Your task to perform on an android device: toggle improve location accuracy Image 0: 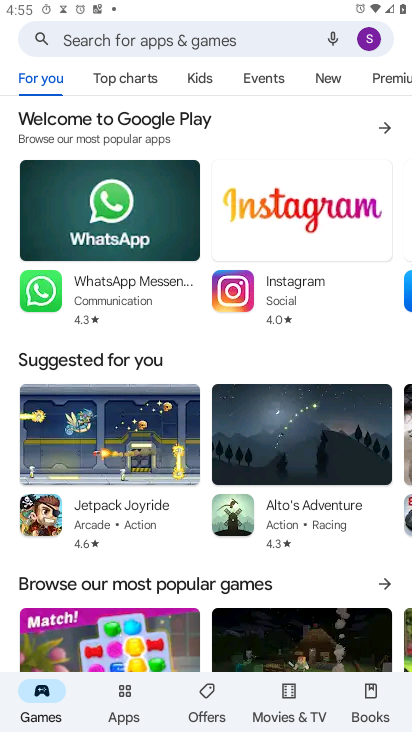
Step 0: press home button
Your task to perform on an android device: toggle improve location accuracy Image 1: 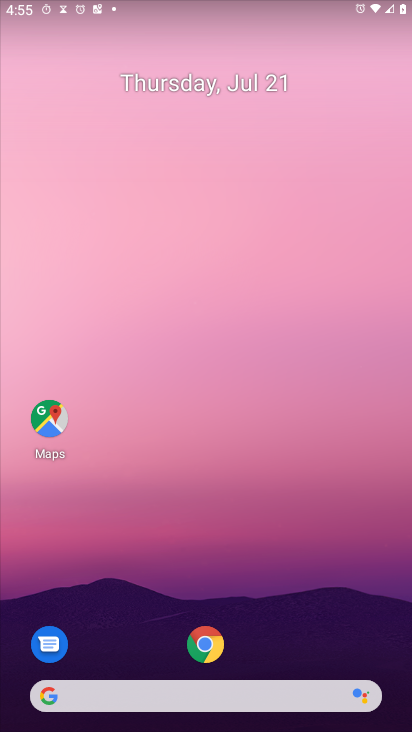
Step 1: drag from (311, 574) to (402, 74)
Your task to perform on an android device: toggle improve location accuracy Image 2: 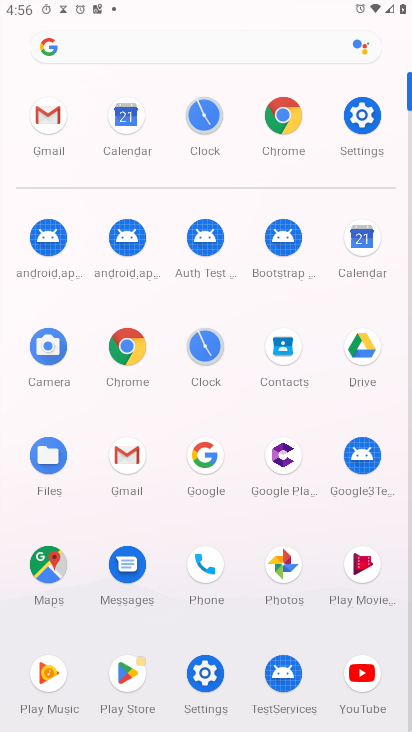
Step 2: click (370, 116)
Your task to perform on an android device: toggle improve location accuracy Image 3: 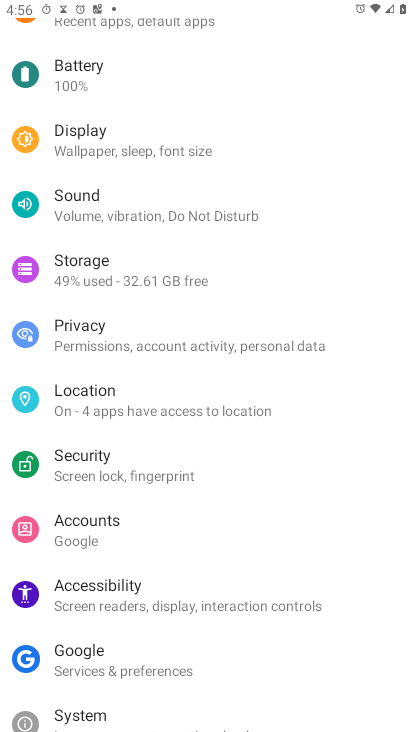
Step 3: click (82, 397)
Your task to perform on an android device: toggle improve location accuracy Image 4: 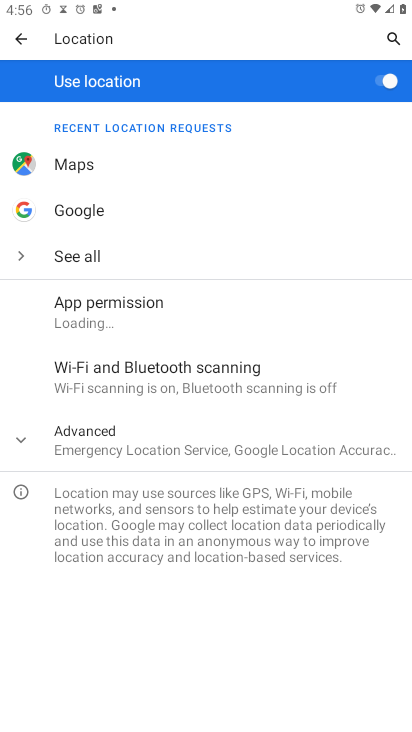
Step 4: click (14, 442)
Your task to perform on an android device: toggle improve location accuracy Image 5: 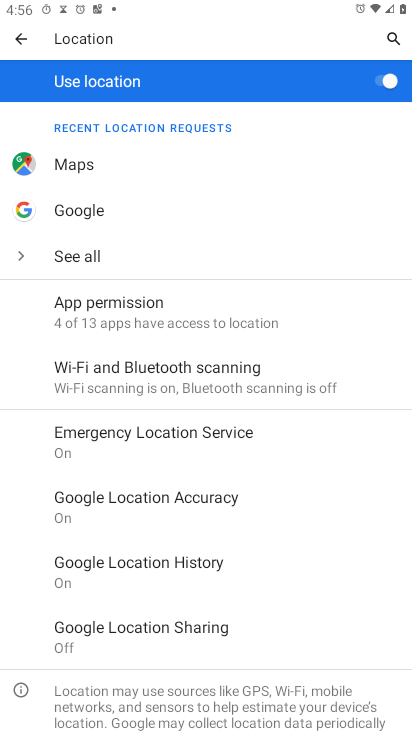
Step 5: click (166, 506)
Your task to perform on an android device: toggle improve location accuracy Image 6: 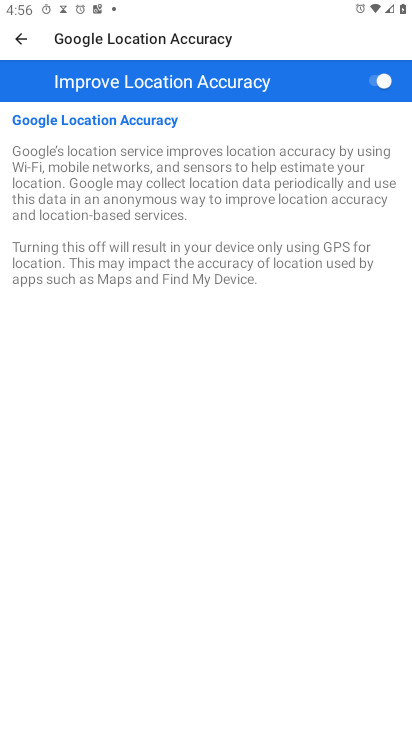
Step 6: click (378, 74)
Your task to perform on an android device: toggle improve location accuracy Image 7: 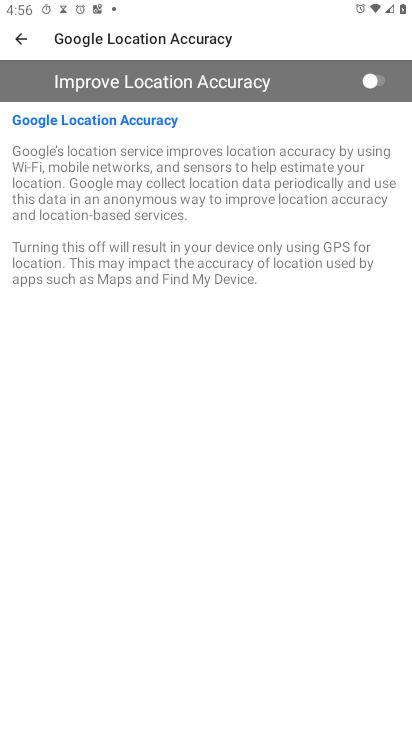
Step 7: task complete